Your task to perform on an android device: set the timer Image 0: 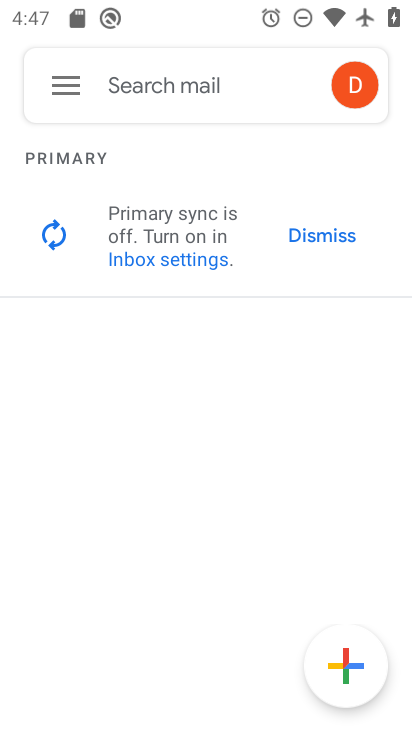
Step 0: press home button
Your task to perform on an android device: set the timer Image 1: 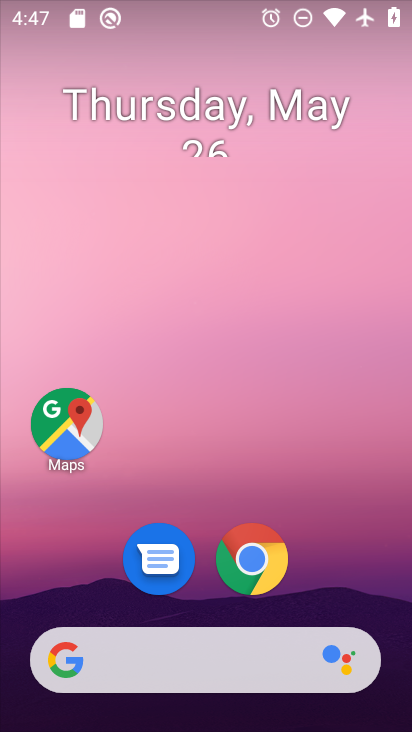
Step 1: drag from (349, 549) to (203, 74)
Your task to perform on an android device: set the timer Image 2: 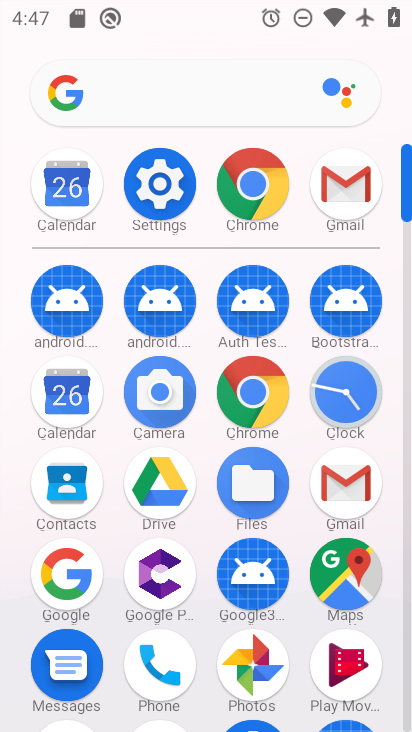
Step 2: click (342, 390)
Your task to perform on an android device: set the timer Image 3: 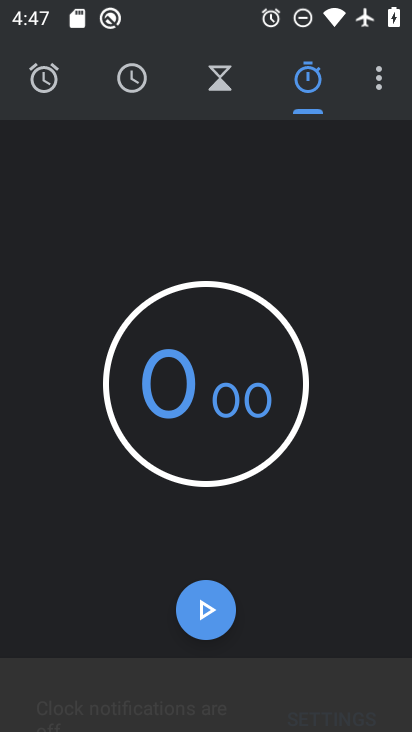
Step 3: click (364, 78)
Your task to perform on an android device: set the timer Image 4: 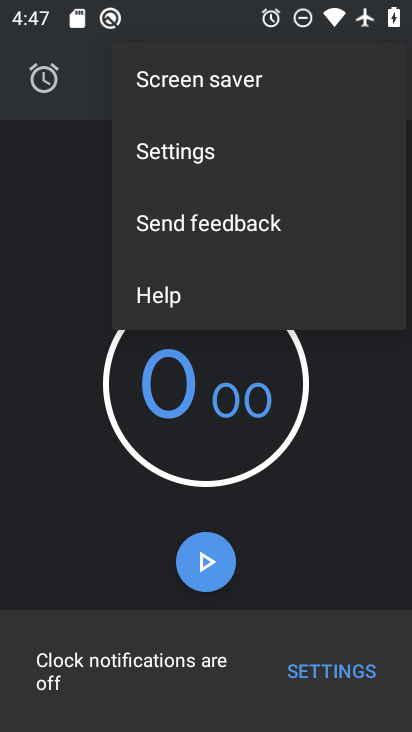
Step 4: click (45, 205)
Your task to perform on an android device: set the timer Image 5: 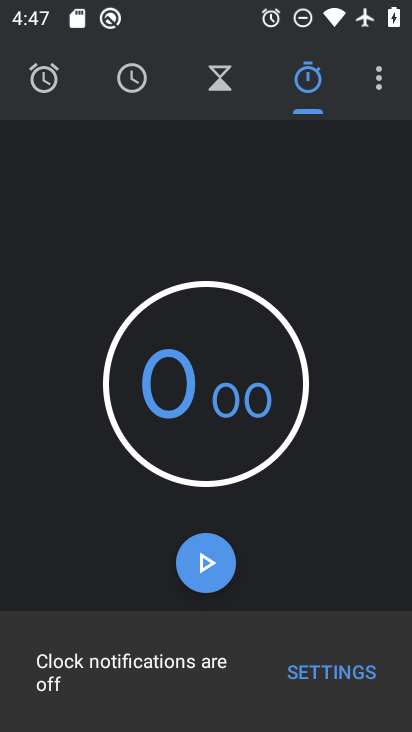
Step 5: click (203, 68)
Your task to perform on an android device: set the timer Image 6: 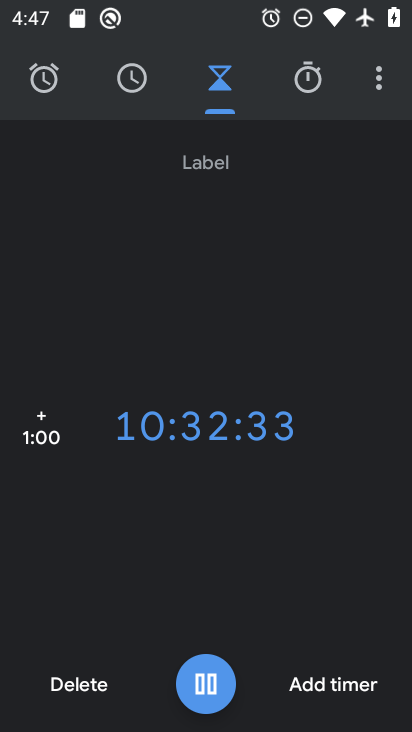
Step 6: click (86, 672)
Your task to perform on an android device: set the timer Image 7: 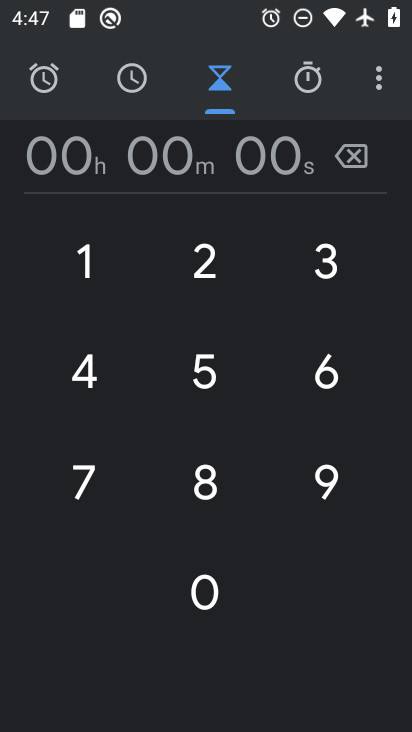
Step 7: click (84, 233)
Your task to perform on an android device: set the timer Image 8: 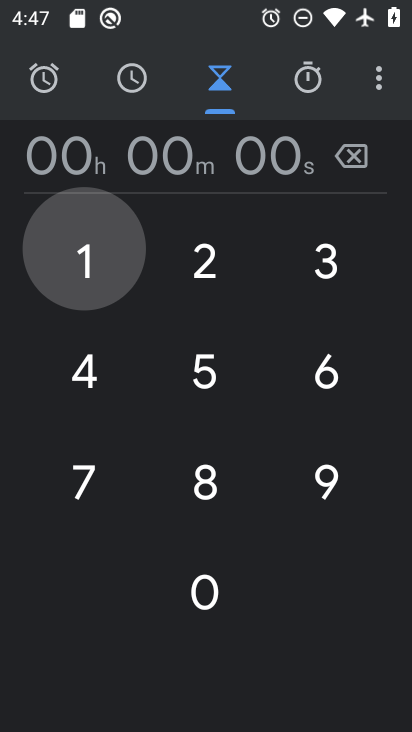
Step 8: click (85, 234)
Your task to perform on an android device: set the timer Image 9: 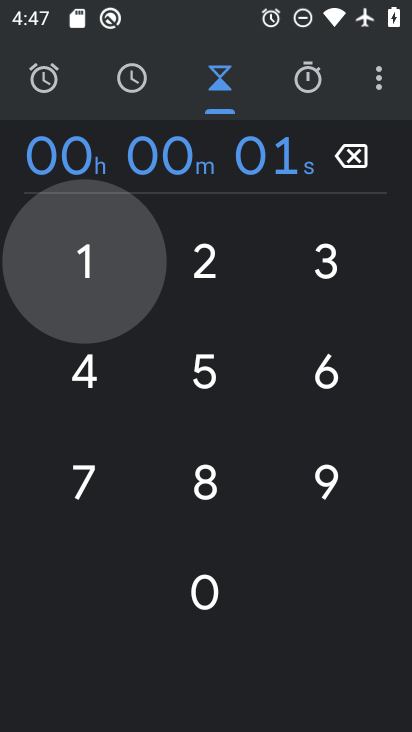
Step 9: click (86, 234)
Your task to perform on an android device: set the timer Image 10: 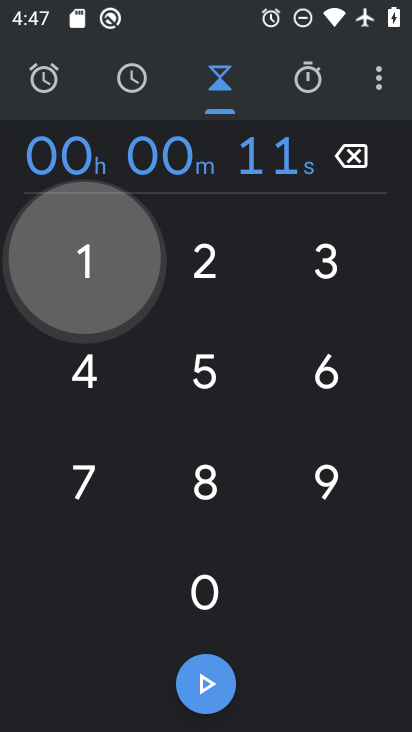
Step 10: click (87, 234)
Your task to perform on an android device: set the timer Image 11: 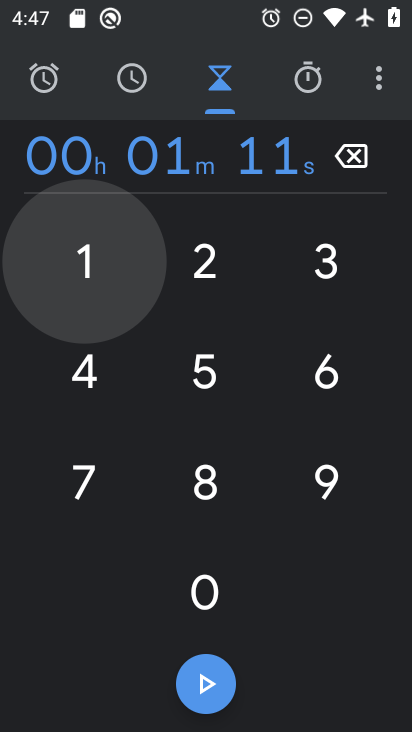
Step 11: click (87, 234)
Your task to perform on an android device: set the timer Image 12: 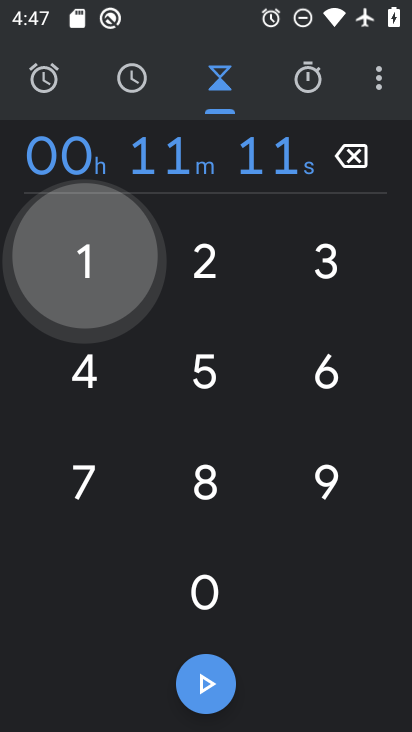
Step 12: click (88, 234)
Your task to perform on an android device: set the timer Image 13: 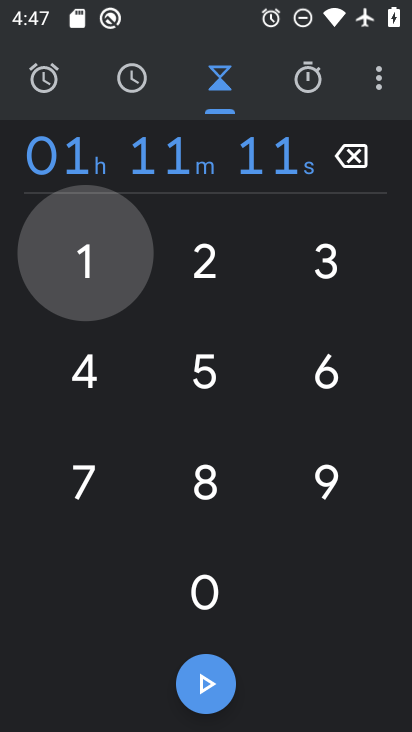
Step 13: click (88, 234)
Your task to perform on an android device: set the timer Image 14: 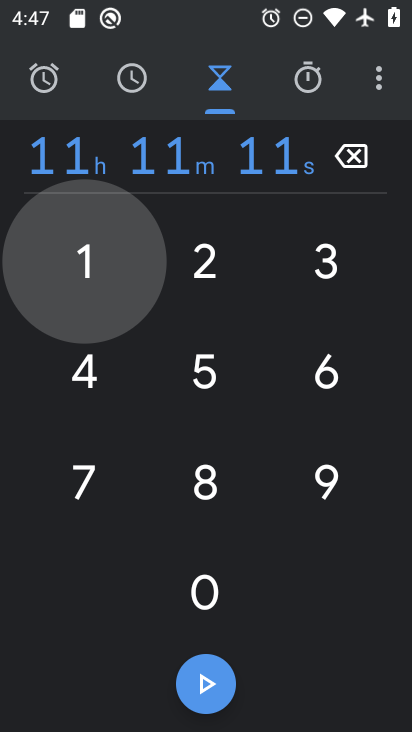
Step 14: click (88, 234)
Your task to perform on an android device: set the timer Image 15: 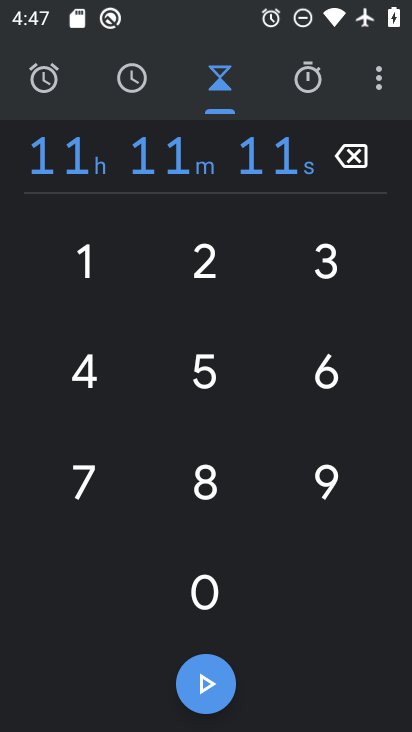
Step 15: click (215, 688)
Your task to perform on an android device: set the timer Image 16: 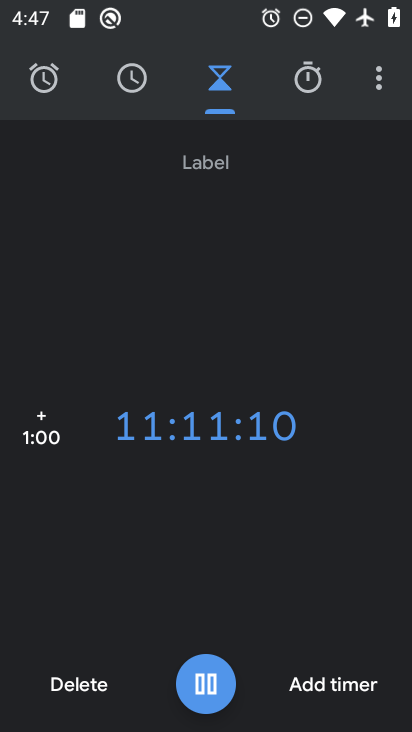
Step 16: task complete